Your task to perform on an android device: Find coffee shops on Maps Image 0: 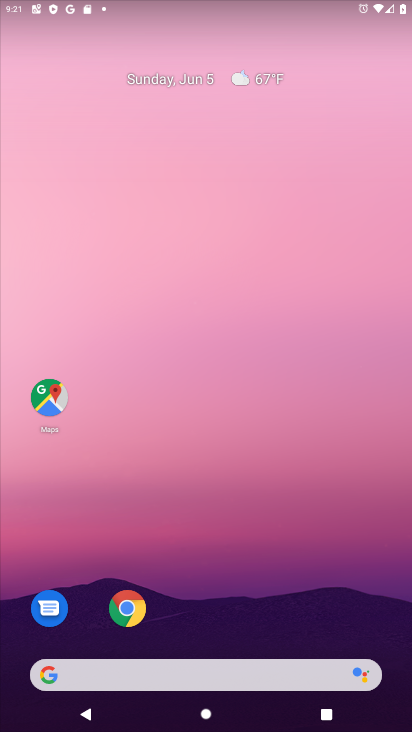
Step 0: click (66, 384)
Your task to perform on an android device: Find coffee shops on Maps Image 1: 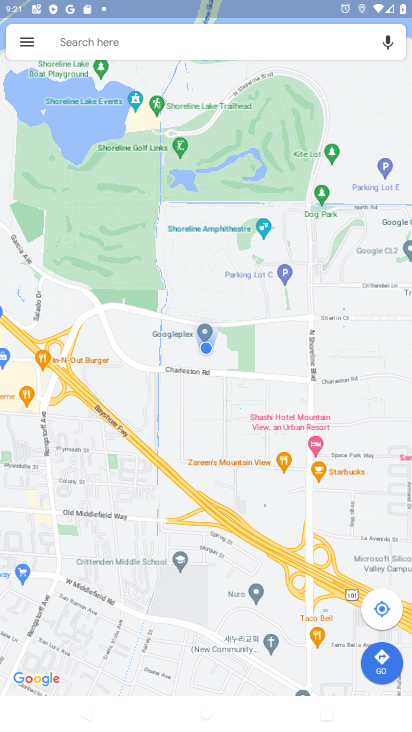
Step 1: click (144, 39)
Your task to perform on an android device: Find coffee shops on Maps Image 2: 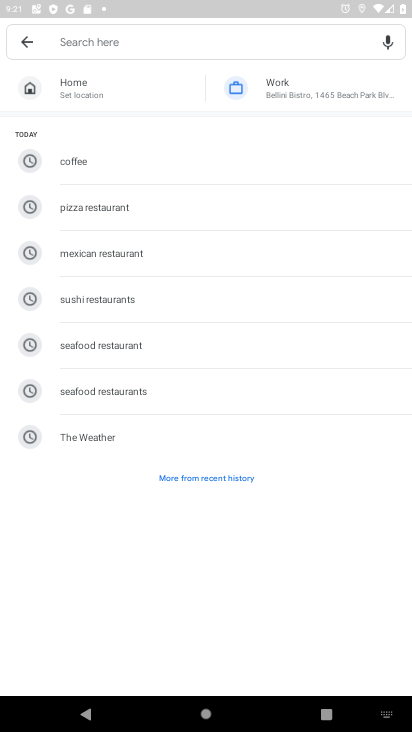
Step 2: click (109, 163)
Your task to perform on an android device: Find coffee shops on Maps Image 3: 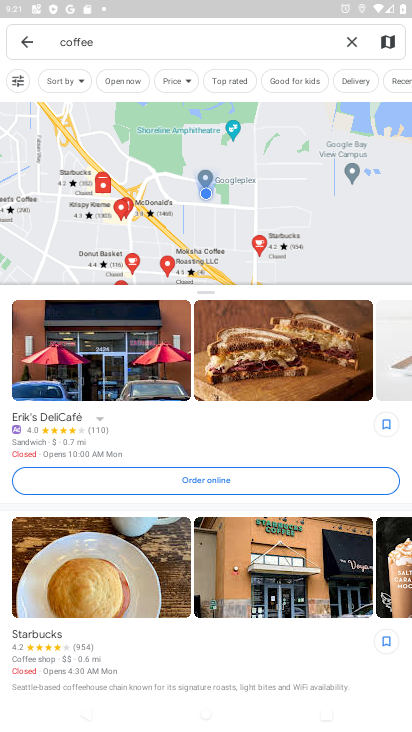
Step 3: task complete